Your task to perform on an android device: read, delete, or share a saved page in the chrome app Image 0: 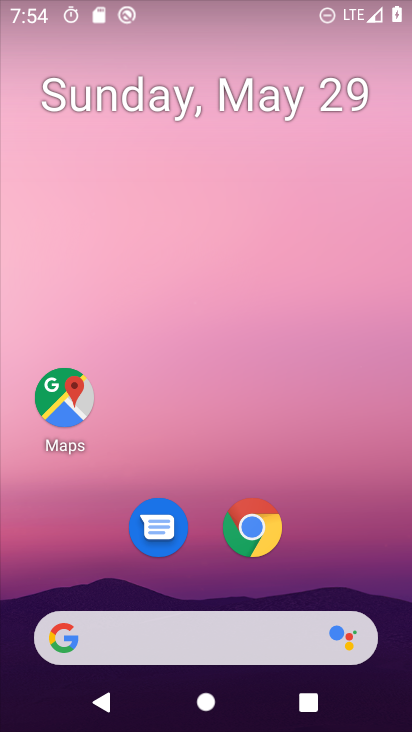
Step 0: drag from (396, 624) to (281, 74)
Your task to perform on an android device: read, delete, or share a saved page in the chrome app Image 1: 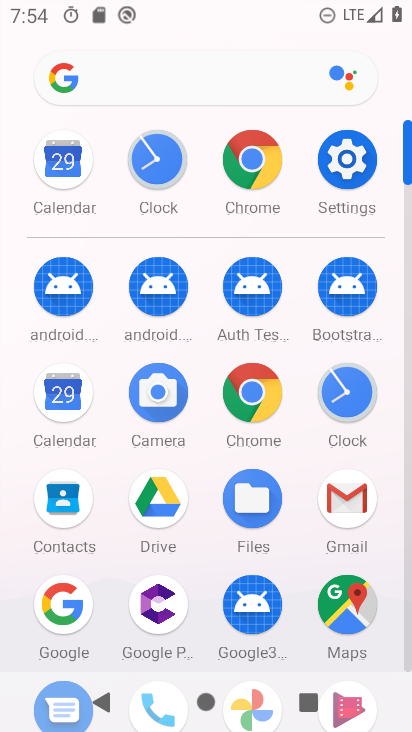
Step 1: click (266, 177)
Your task to perform on an android device: read, delete, or share a saved page in the chrome app Image 2: 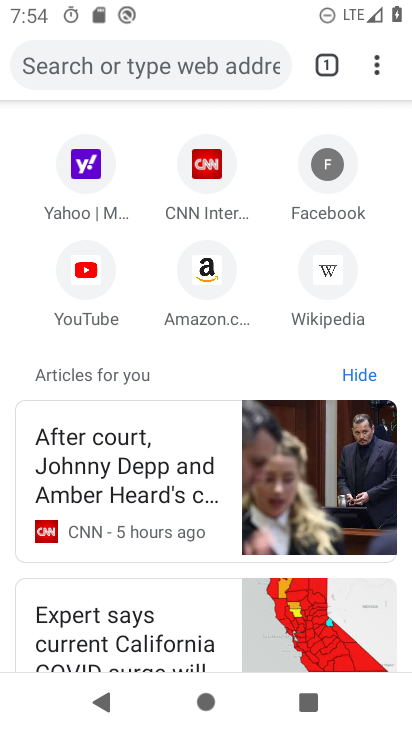
Step 2: task complete